Your task to perform on an android device: turn on location history Image 0: 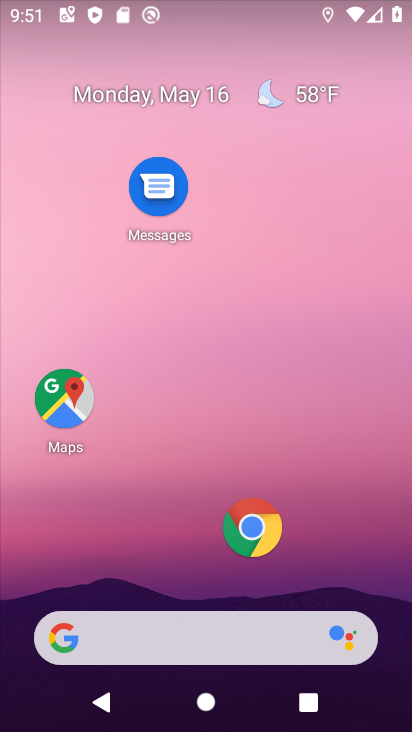
Step 0: drag from (171, 553) to (171, 49)
Your task to perform on an android device: turn on location history Image 1: 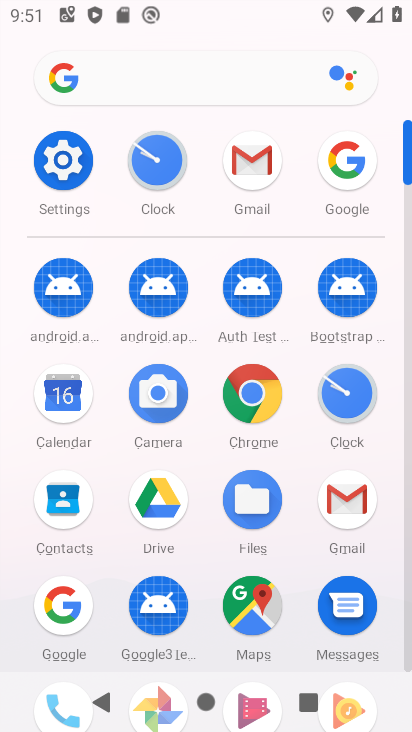
Step 1: click (69, 158)
Your task to perform on an android device: turn on location history Image 2: 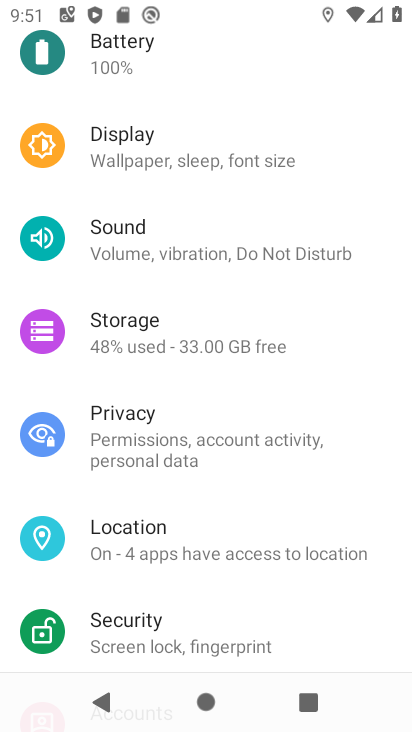
Step 2: click (194, 541)
Your task to perform on an android device: turn on location history Image 3: 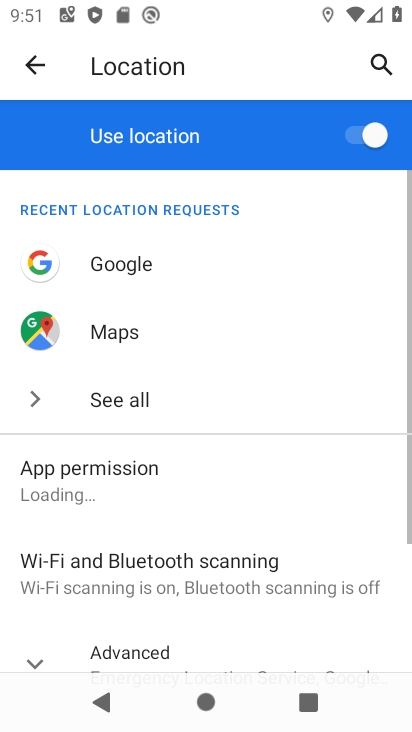
Step 3: drag from (243, 524) to (260, 210)
Your task to perform on an android device: turn on location history Image 4: 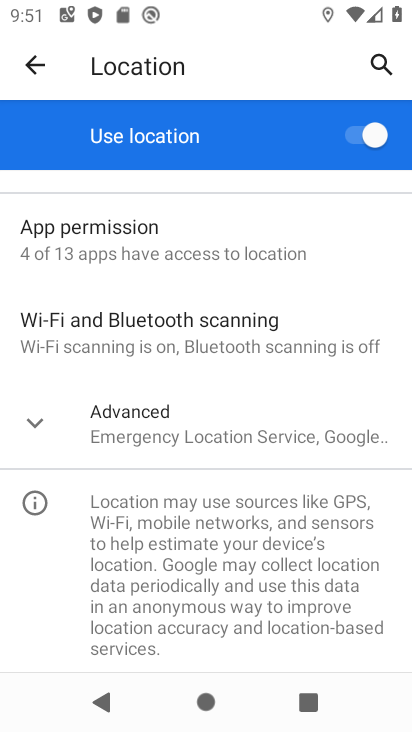
Step 4: click (130, 402)
Your task to perform on an android device: turn on location history Image 5: 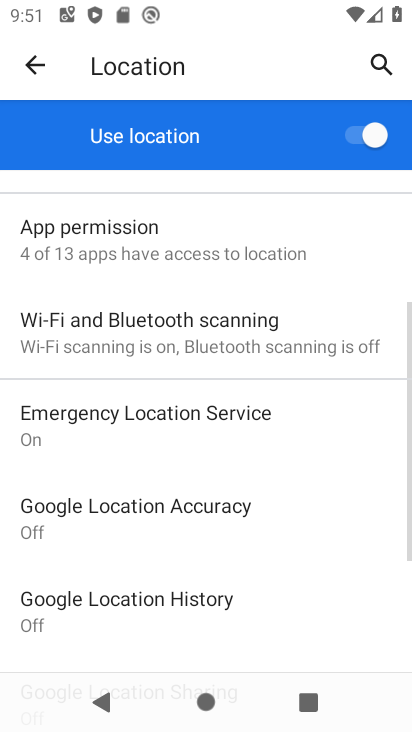
Step 5: click (163, 605)
Your task to perform on an android device: turn on location history Image 6: 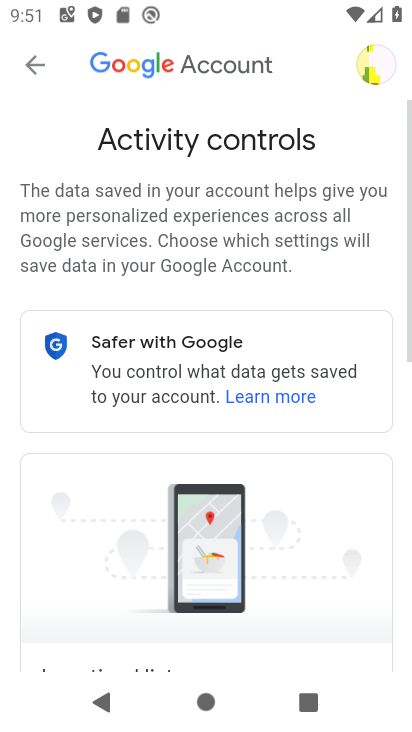
Step 6: task complete